Your task to perform on an android device: Open Google Chrome Image 0: 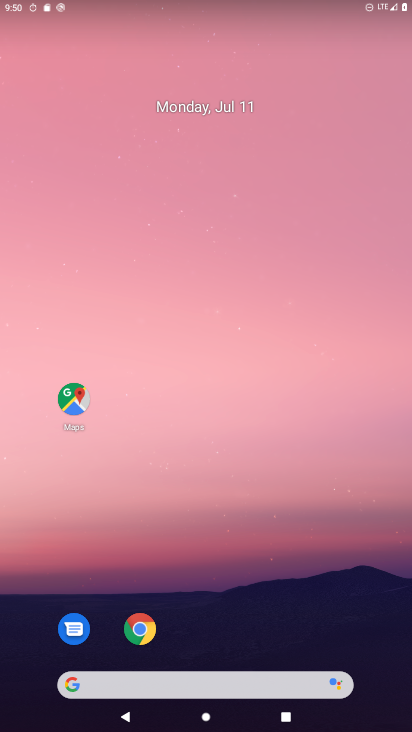
Step 0: click (148, 622)
Your task to perform on an android device: Open Google Chrome Image 1: 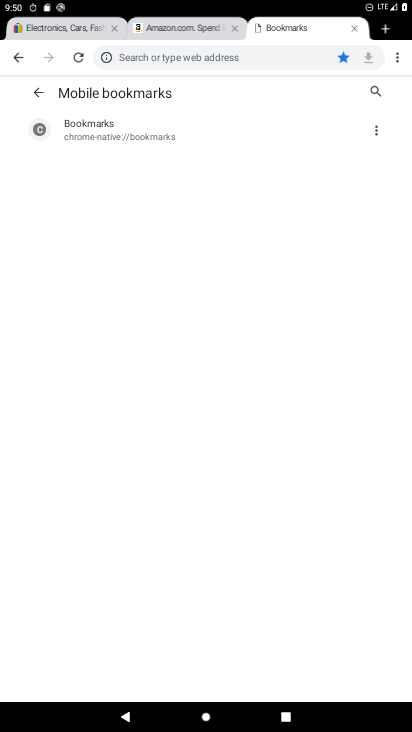
Step 1: task complete